Your task to perform on an android device: star an email in the gmail app Image 0: 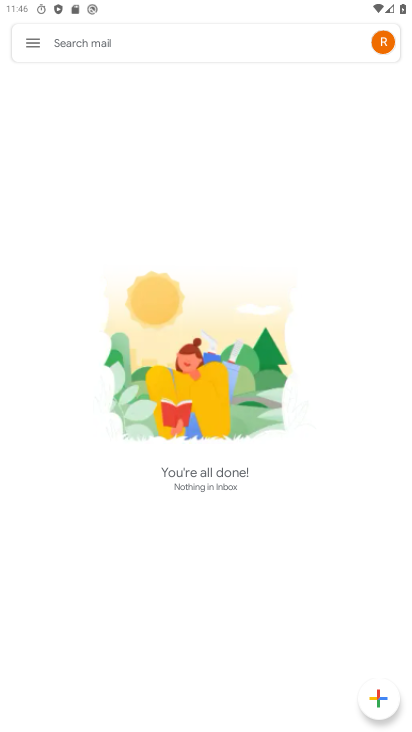
Step 0: click (30, 43)
Your task to perform on an android device: star an email in the gmail app Image 1: 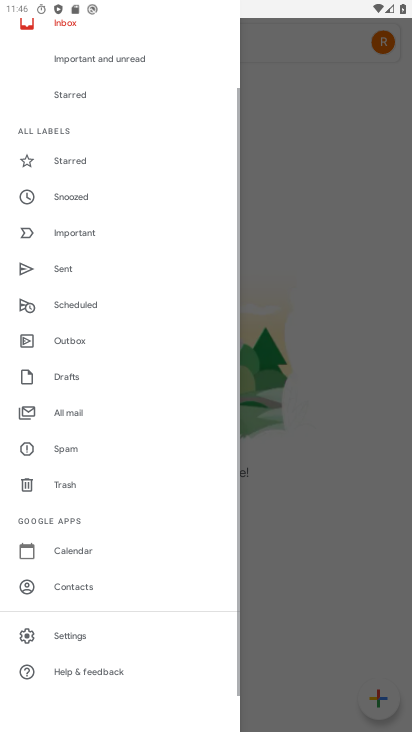
Step 1: drag from (80, 282) to (208, 642)
Your task to perform on an android device: star an email in the gmail app Image 2: 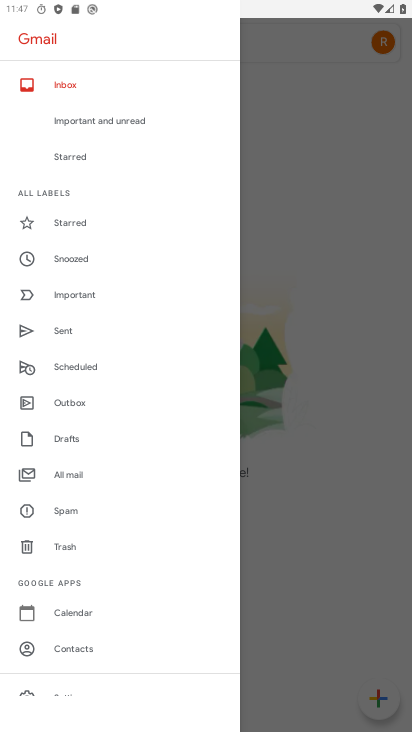
Step 2: click (51, 92)
Your task to perform on an android device: star an email in the gmail app Image 3: 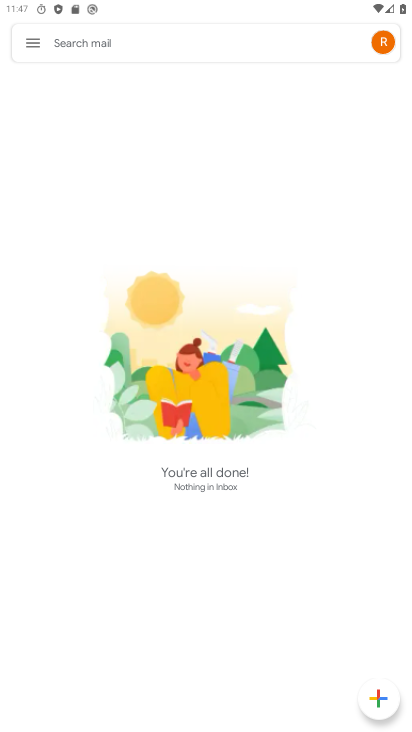
Step 3: task complete